Your task to perform on an android device: turn off airplane mode Image 0: 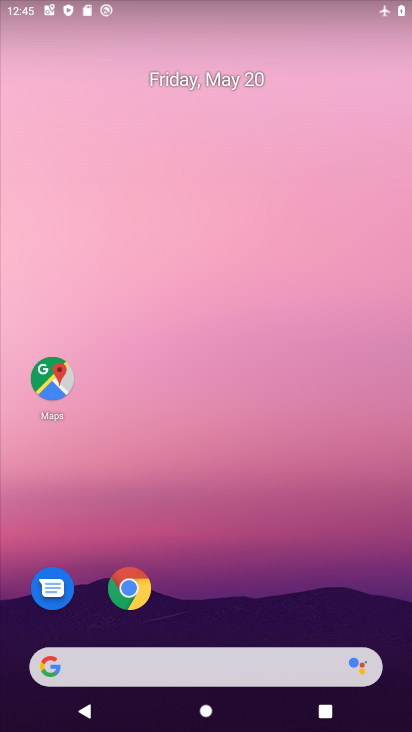
Step 0: drag from (389, 625) to (332, 69)
Your task to perform on an android device: turn off airplane mode Image 1: 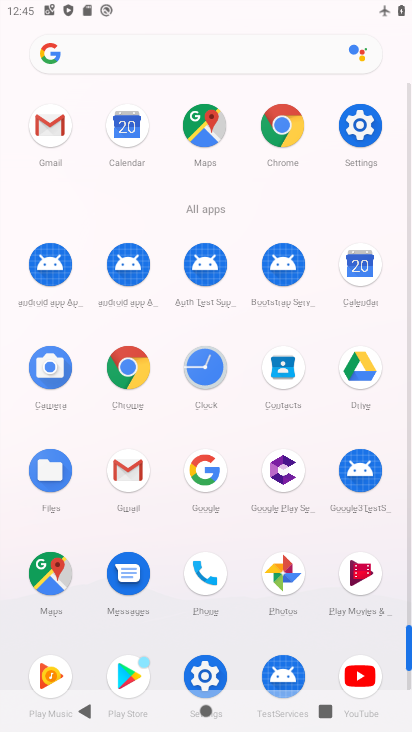
Step 1: click (408, 679)
Your task to perform on an android device: turn off airplane mode Image 2: 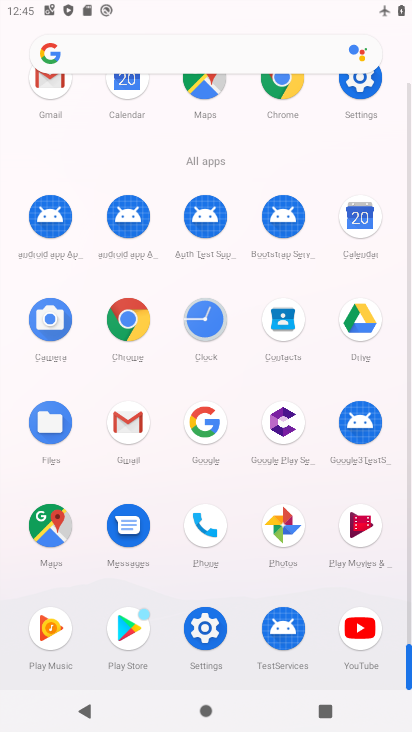
Step 2: click (207, 627)
Your task to perform on an android device: turn off airplane mode Image 3: 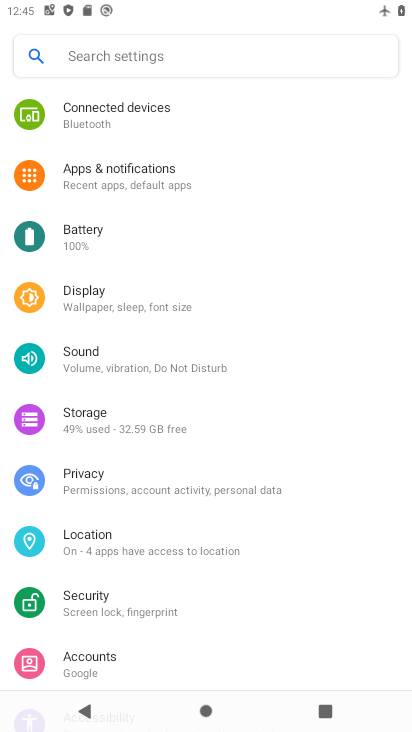
Step 3: drag from (301, 121) to (291, 620)
Your task to perform on an android device: turn off airplane mode Image 4: 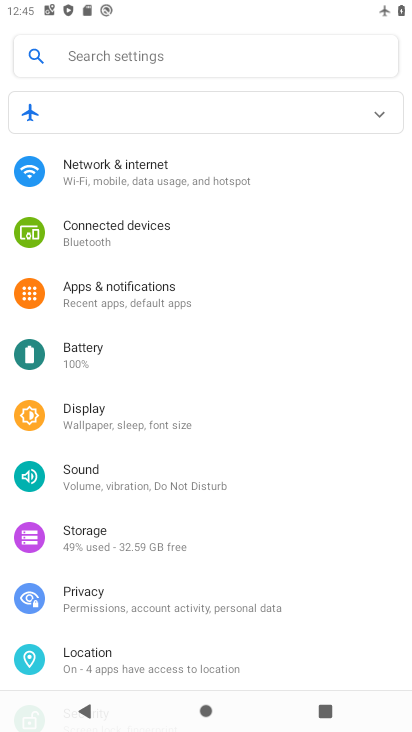
Step 4: click (117, 164)
Your task to perform on an android device: turn off airplane mode Image 5: 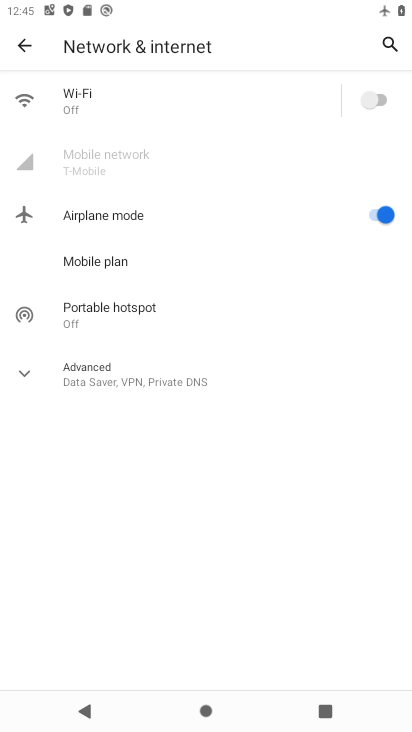
Step 5: click (372, 210)
Your task to perform on an android device: turn off airplane mode Image 6: 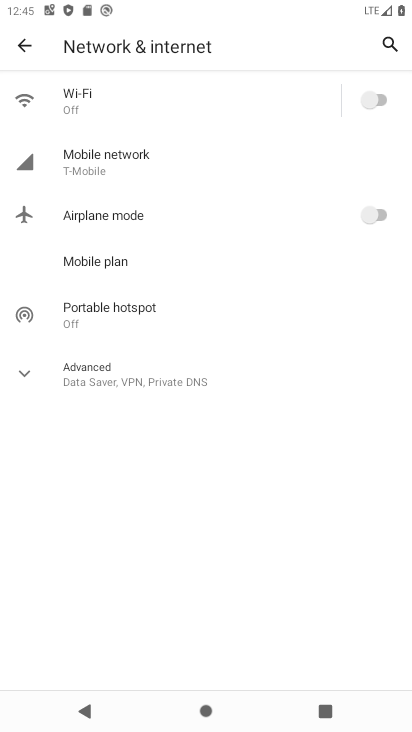
Step 6: task complete